Your task to perform on an android device: allow cookies in the chrome app Image 0: 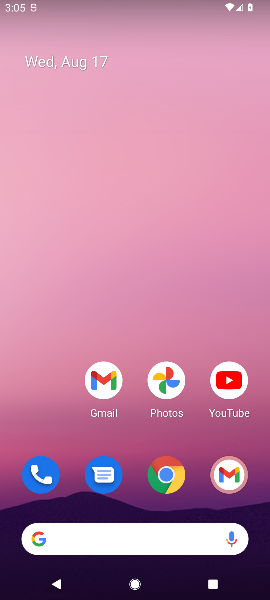
Step 0: drag from (142, 502) to (108, 43)
Your task to perform on an android device: allow cookies in the chrome app Image 1: 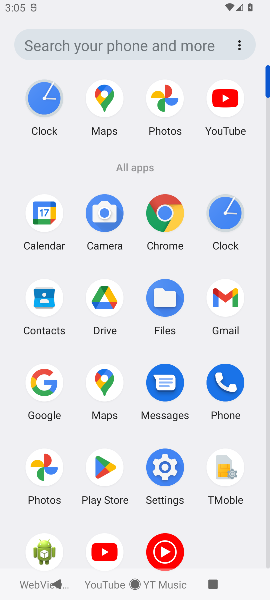
Step 1: click (160, 213)
Your task to perform on an android device: allow cookies in the chrome app Image 2: 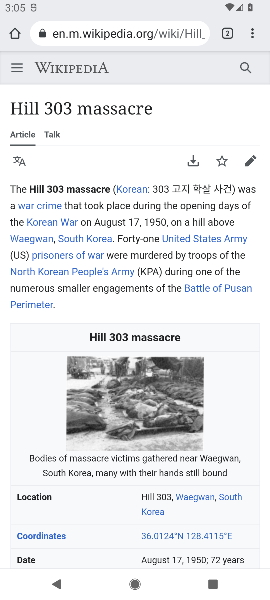
Step 2: click (248, 33)
Your task to perform on an android device: allow cookies in the chrome app Image 3: 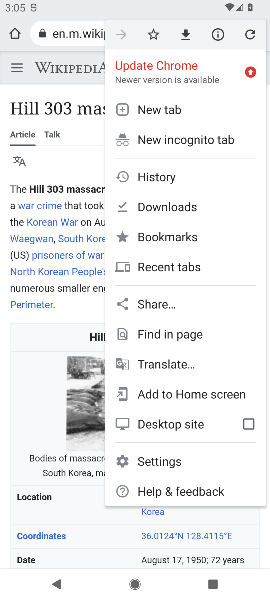
Step 3: click (147, 454)
Your task to perform on an android device: allow cookies in the chrome app Image 4: 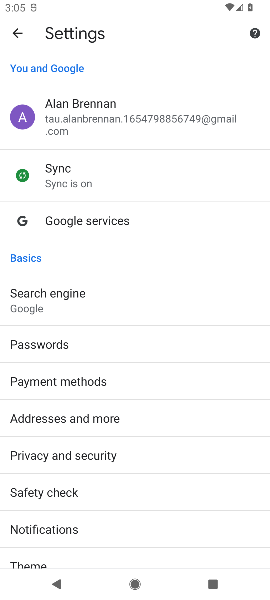
Step 4: drag from (94, 479) to (99, 119)
Your task to perform on an android device: allow cookies in the chrome app Image 5: 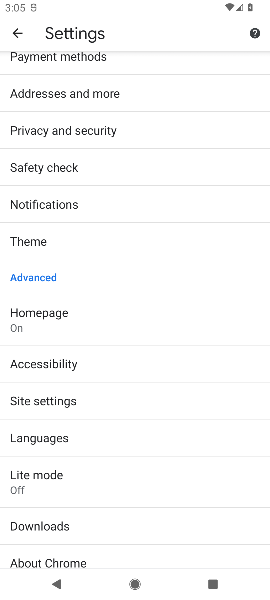
Step 5: click (38, 397)
Your task to perform on an android device: allow cookies in the chrome app Image 6: 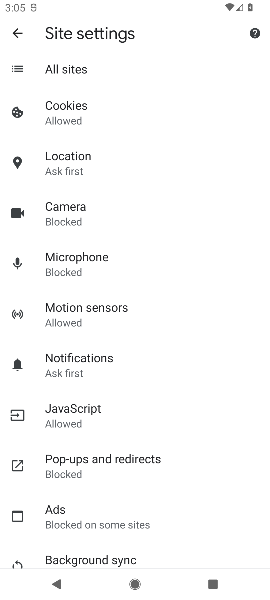
Step 6: click (63, 108)
Your task to perform on an android device: allow cookies in the chrome app Image 7: 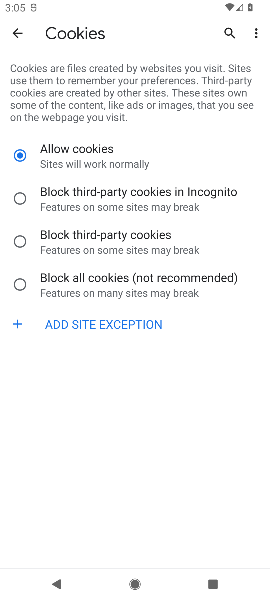
Step 7: click (24, 143)
Your task to perform on an android device: allow cookies in the chrome app Image 8: 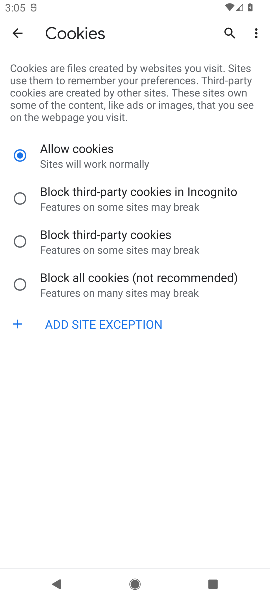
Step 8: task complete